Your task to perform on an android device: Open notification settings Image 0: 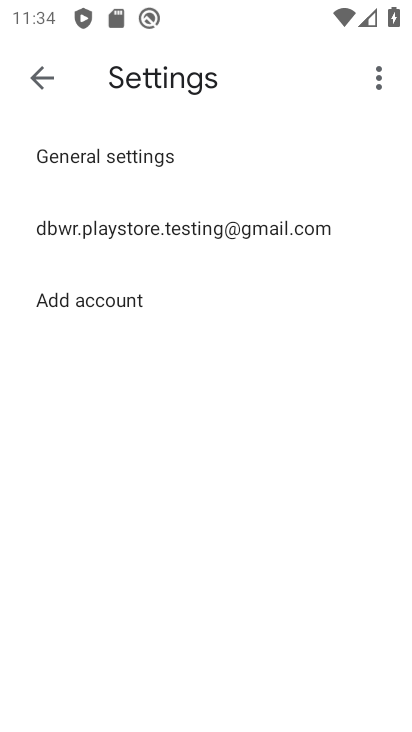
Step 0: press home button
Your task to perform on an android device: Open notification settings Image 1: 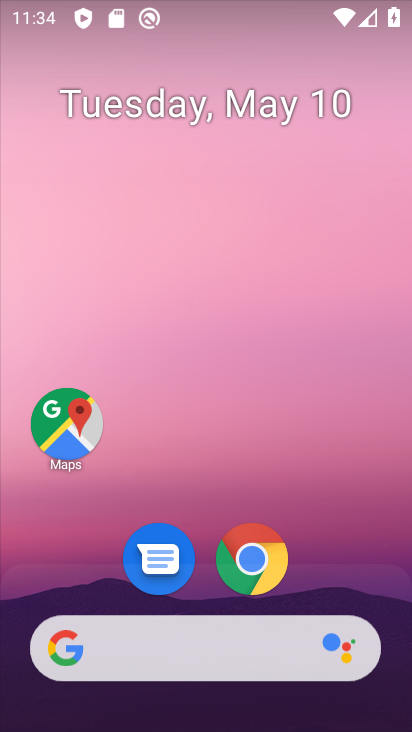
Step 1: drag from (199, 619) to (320, 59)
Your task to perform on an android device: Open notification settings Image 2: 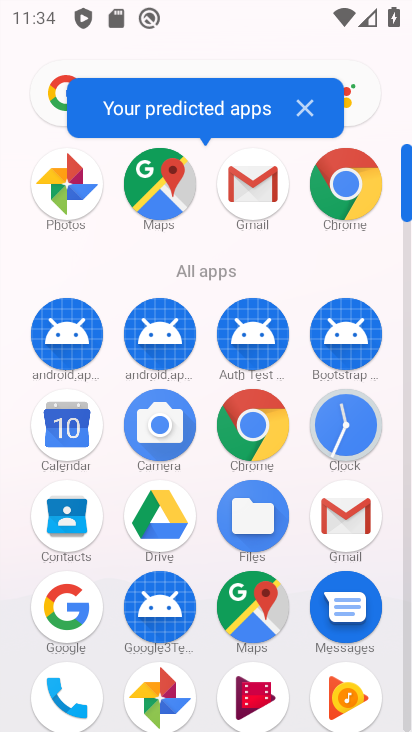
Step 2: drag from (151, 633) to (221, 326)
Your task to perform on an android device: Open notification settings Image 3: 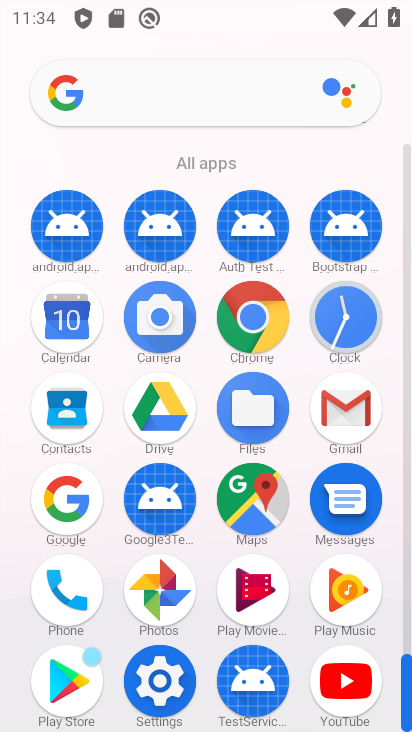
Step 3: click (161, 681)
Your task to perform on an android device: Open notification settings Image 4: 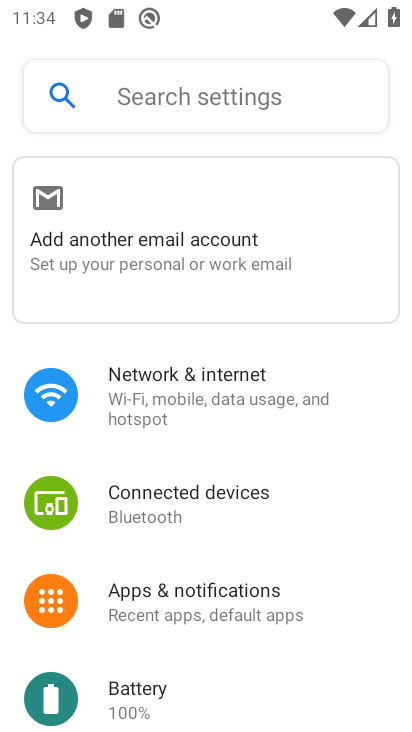
Step 4: click (213, 579)
Your task to perform on an android device: Open notification settings Image 5: 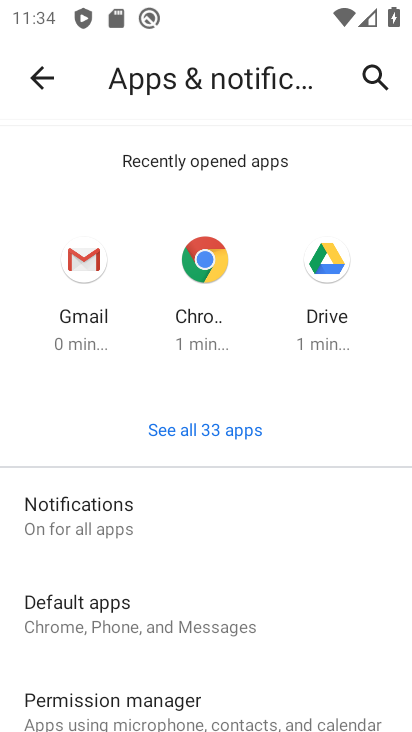
Step 5: drag from (211, 679) to (236, 494)
Your task to perform on an android device: Open notification settings Image 6: 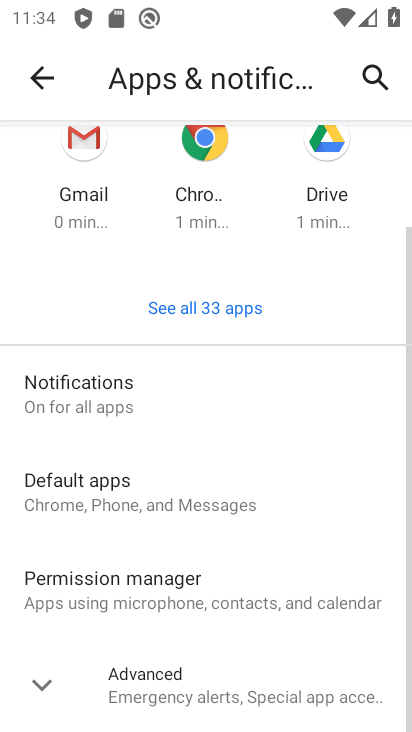
Step 6: click (160, 396)
Your task to perform on an android device: Open notification settings Image 7: 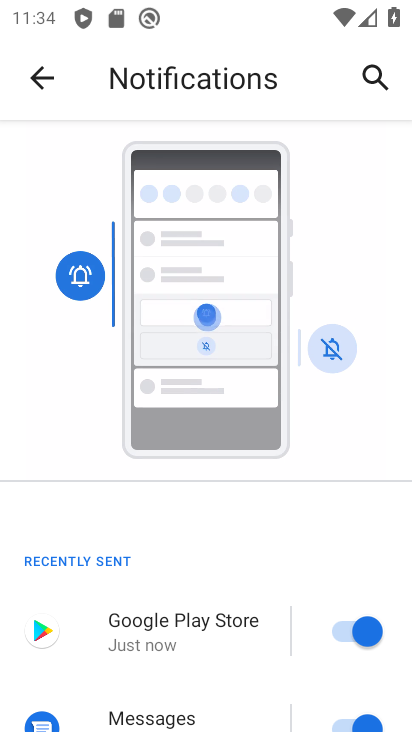
Step 7: task complete